Your task to perform on an android device: turn notification dots on Image 0: 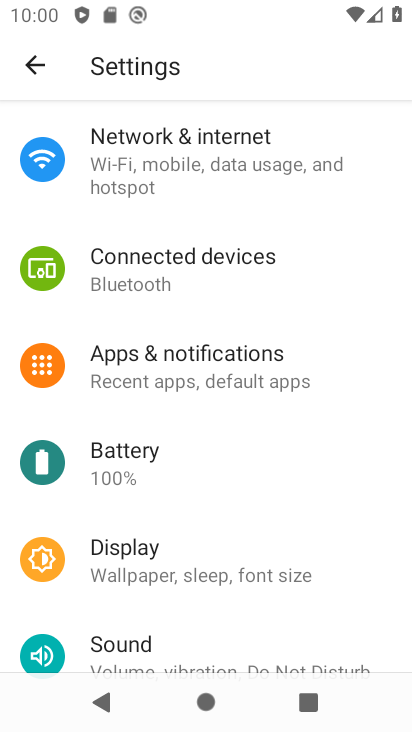
Step 0: click (164, 371)
Your task to perform on an android device: turn notification dots on Image 1: 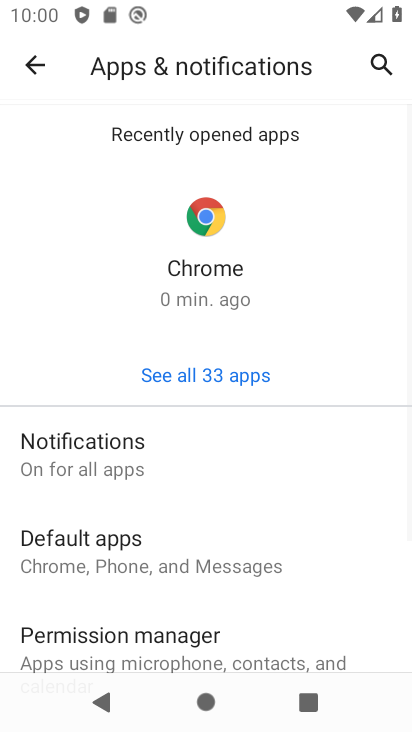
Step 1: click (82, 461)
Your task to perform on an android device: turn notification dots on Image 2: 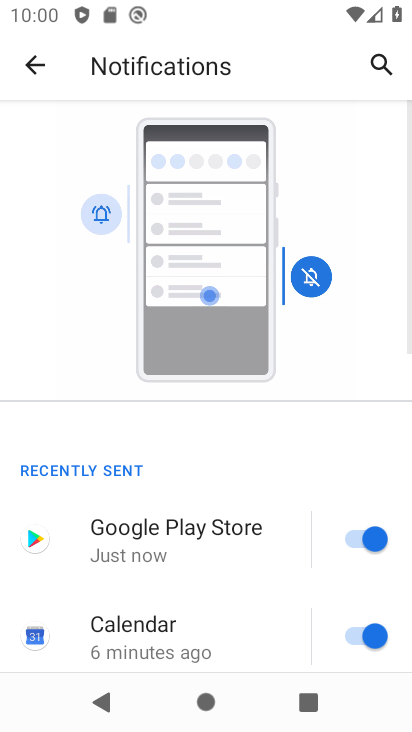
Step 2: drag from (183, 630) to (206, 213)
Your task to perform on an android device: turn notification dots on Image 3: 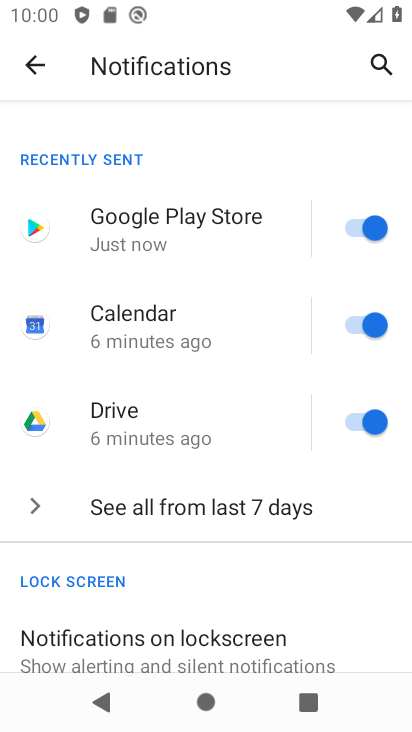
Step 3: drag from (219, 652) to (203, 356)
Your task to perform on an android device: turn notification dots on Image 4: 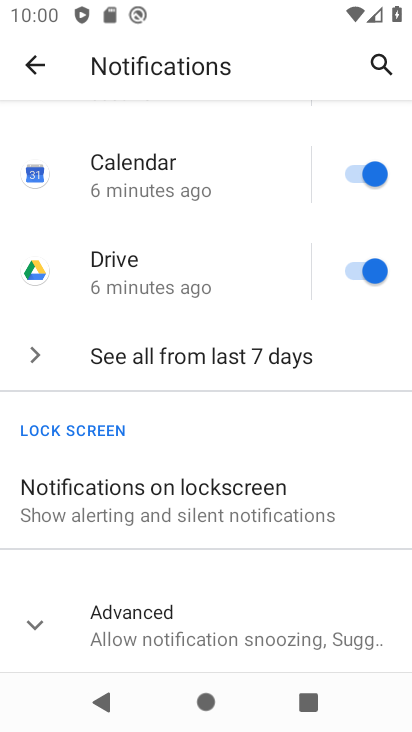
Step 4: click (196, 628)
Your task to perform on an android device: turn notification dots on Image 5: 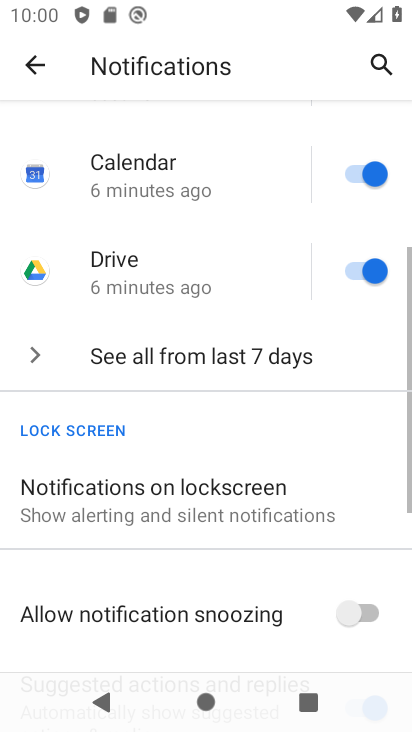
Step 5: drag from (229, 652) to (227, 337)
Your task to perform on an android device: turn notification dots on Image 6: 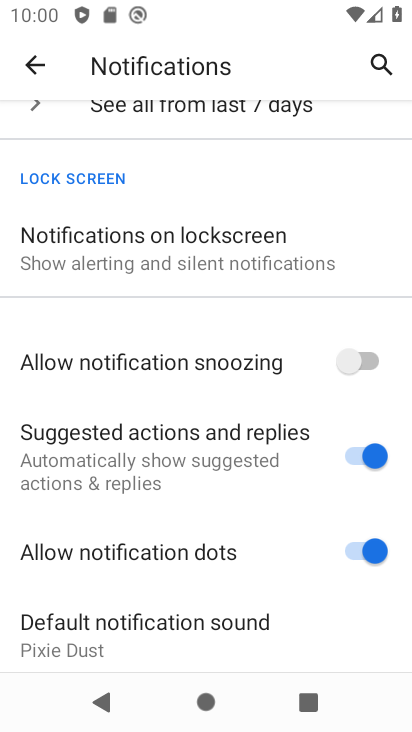
Step 6: click (359, 550)
Your task to perform on an android device: turn notification dots on Image 7: 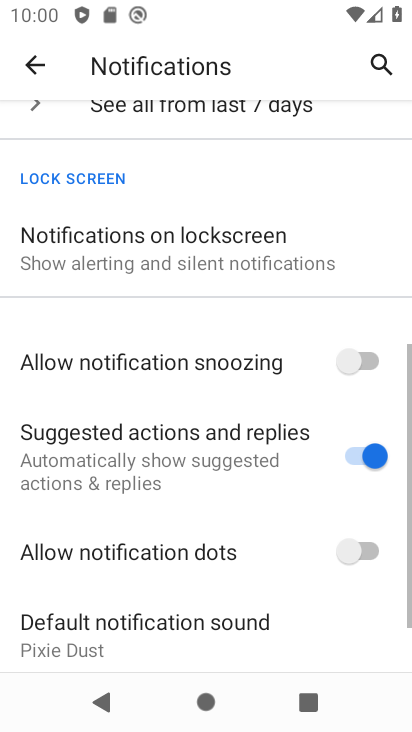
Step 7: task complete